Your task to perform on an android device: open a new tab in the chrome app Image 0: 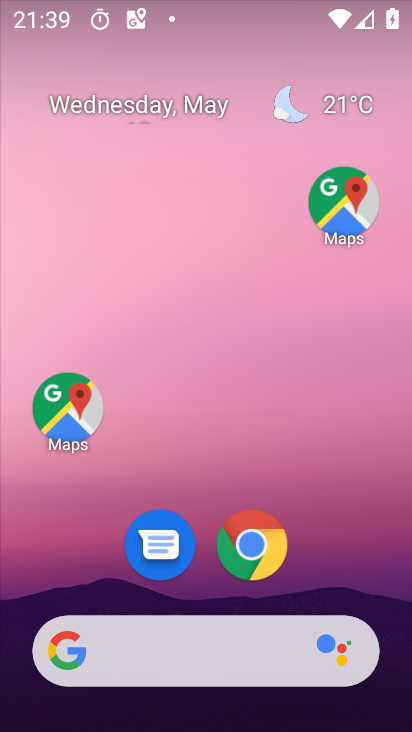
Step 0: click (258, 529)
Your task to perform on an android device: open a new tab in the chrome app Image 1: 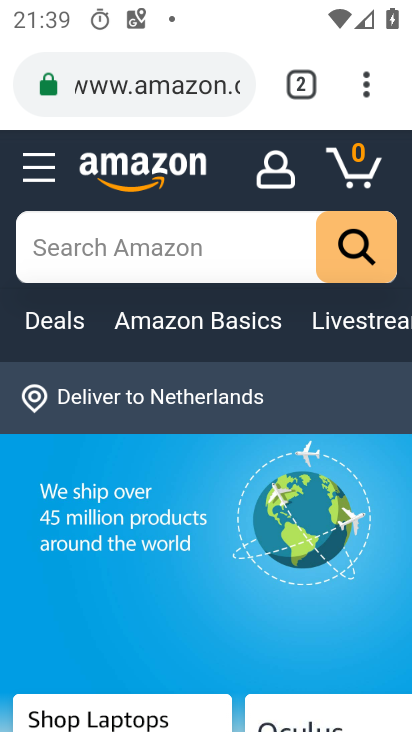
Step 1: click (377, 89)
Your task to perform on an android device: open a new tab in the chrome app Image 2: 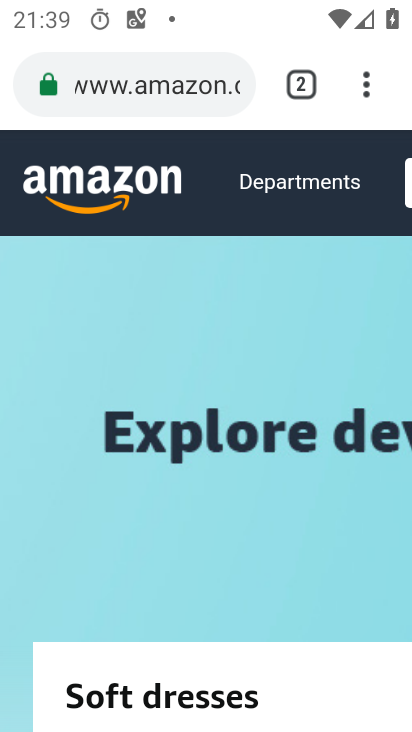
Step 2: click (376, 91)
Your task to perform on an android device: open a new tab in the chrome app Image 3: 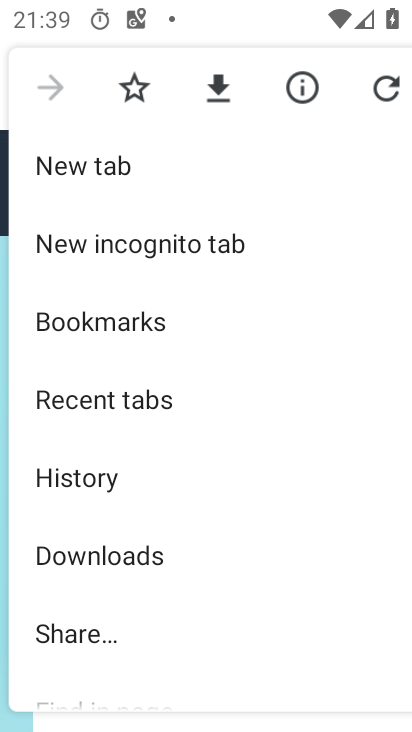
Step 3: click (88, 163)
Your task to perform on an android device: open a new tab in the chrome app Image 4: 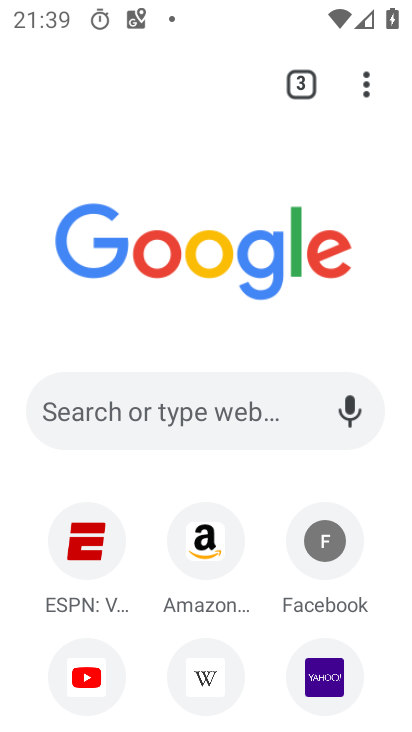
Step 4: task complete